Your task to perform on an android device: open app "Airtel Thanks" (install if not already installed) Image 0: 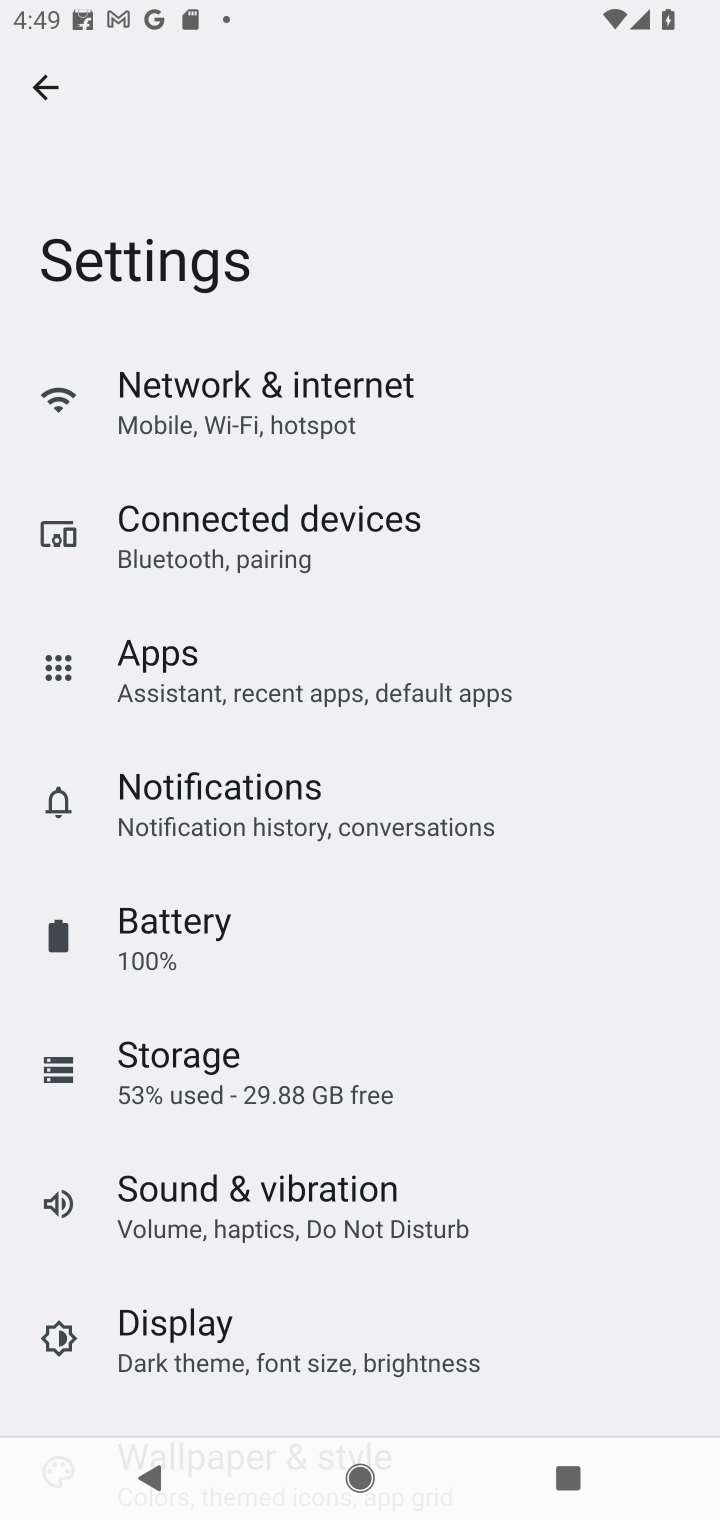
Step 0: press home button
Your task to perform on an android device: open app "Airtel Thanks" (install if not already installed) Image 1: 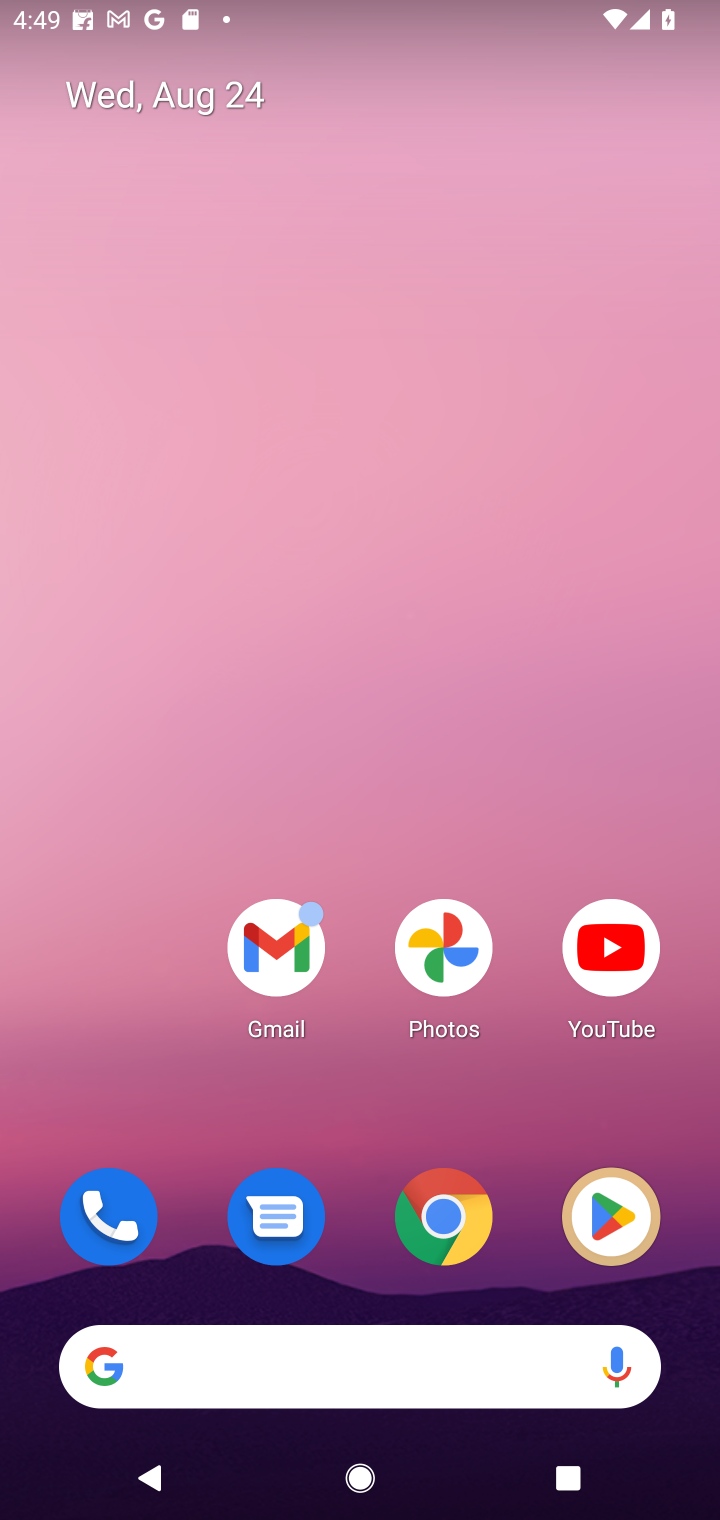
Step 1: click (612, 1234)
Your task to perform on an android device: open app "Airtel Thanks" (install if not already installed) Image 2: 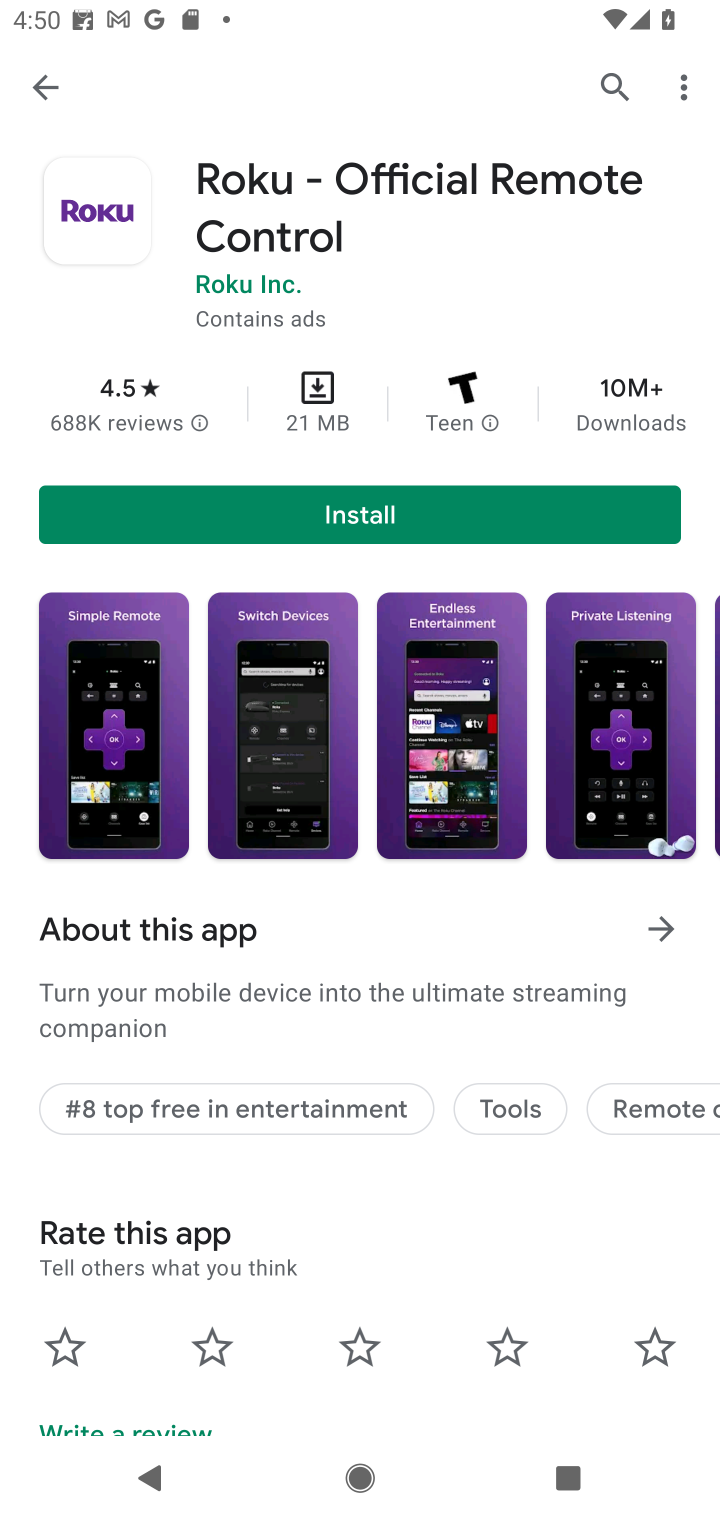
Step 2: click (592, 67)
Your task to perform on an android device: open app "Airtel Thanks" (install if not already installed) Image 3: 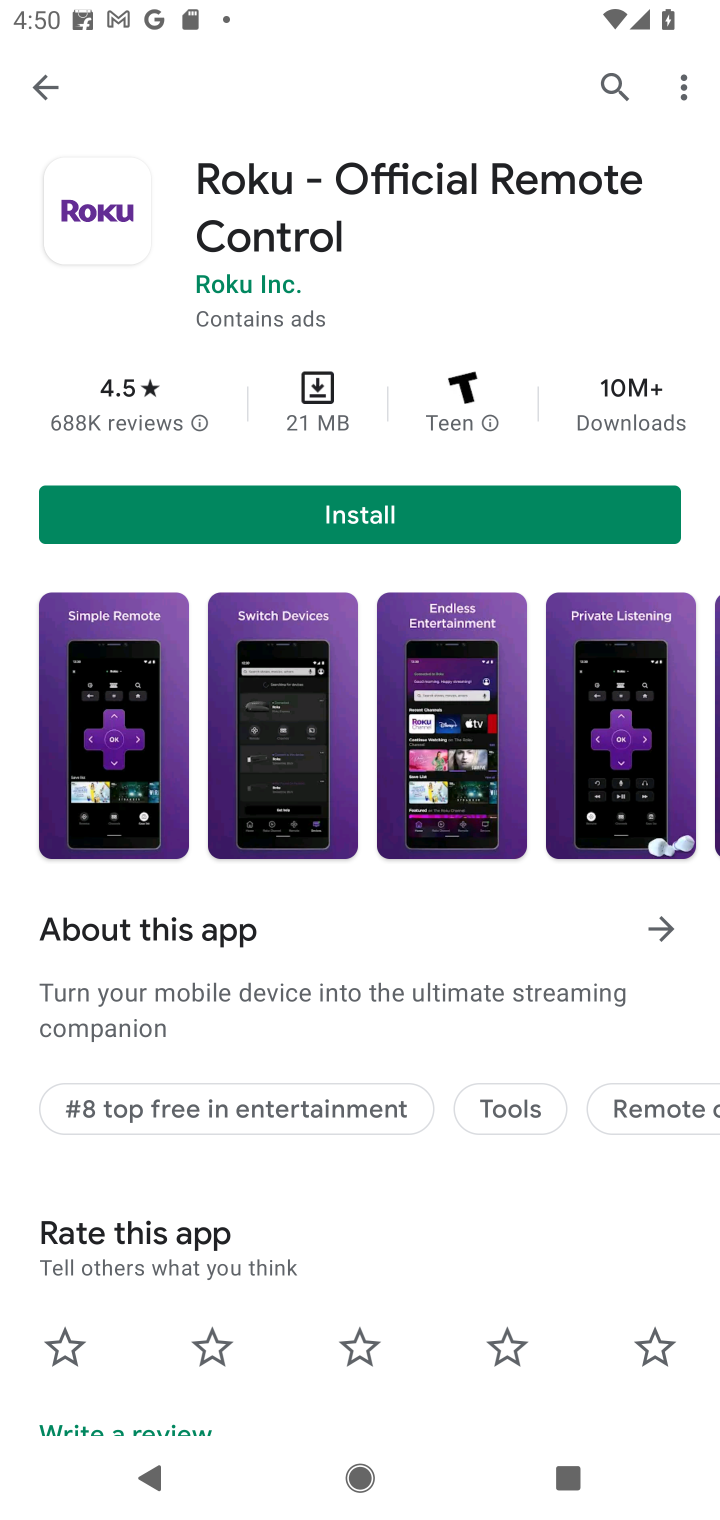
Step 3: click (601, 84)
Your task to perform on an android device: open app "Airtel Thanks" (install if not already installed) Image 4: 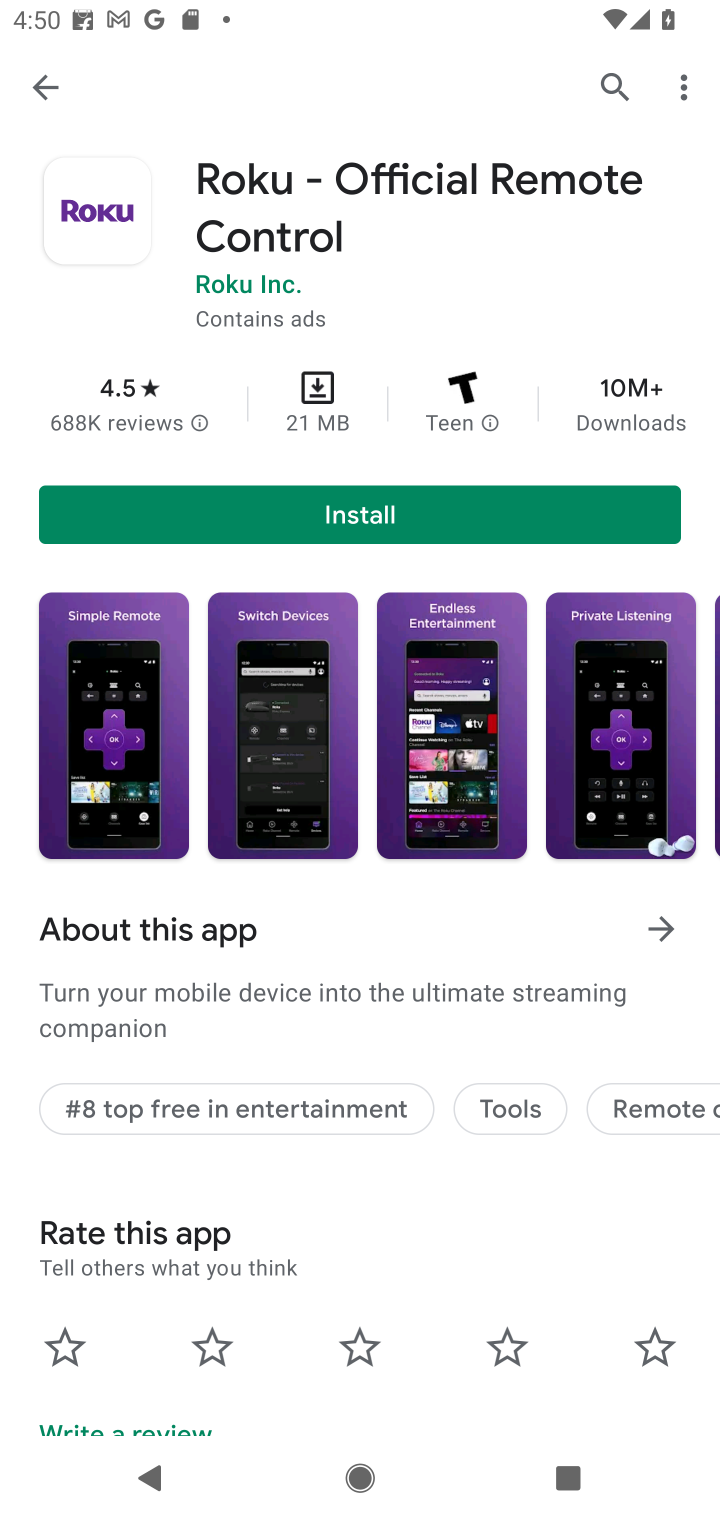
Step 4: click (613, 80)
Your task to perform on an android device: open app "Airtel Thanks" (install if not already installed) Image 5: 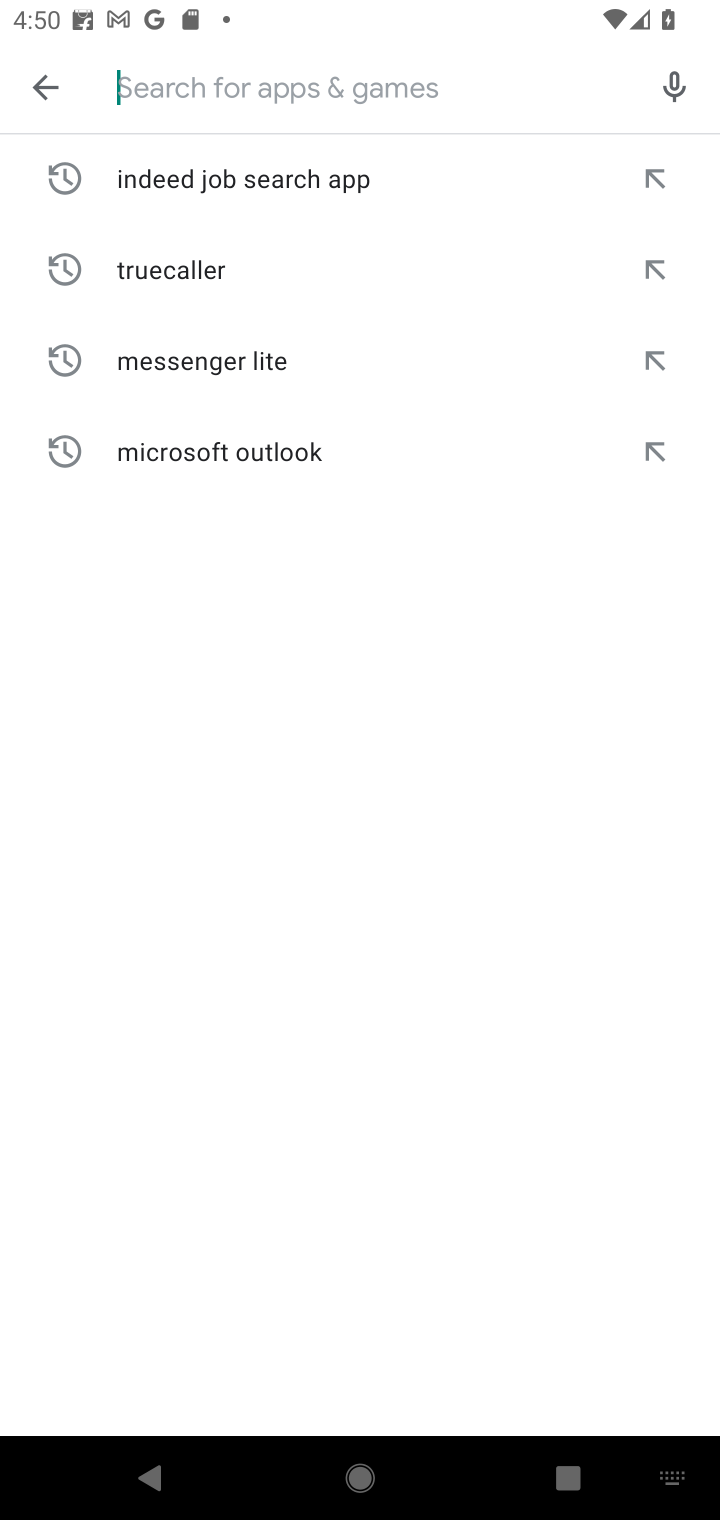
Step 5: type "Airtel Thanks"
Your task to perform on an android device: open app "Airtel Thanks" (install if not already installed) Image 6: 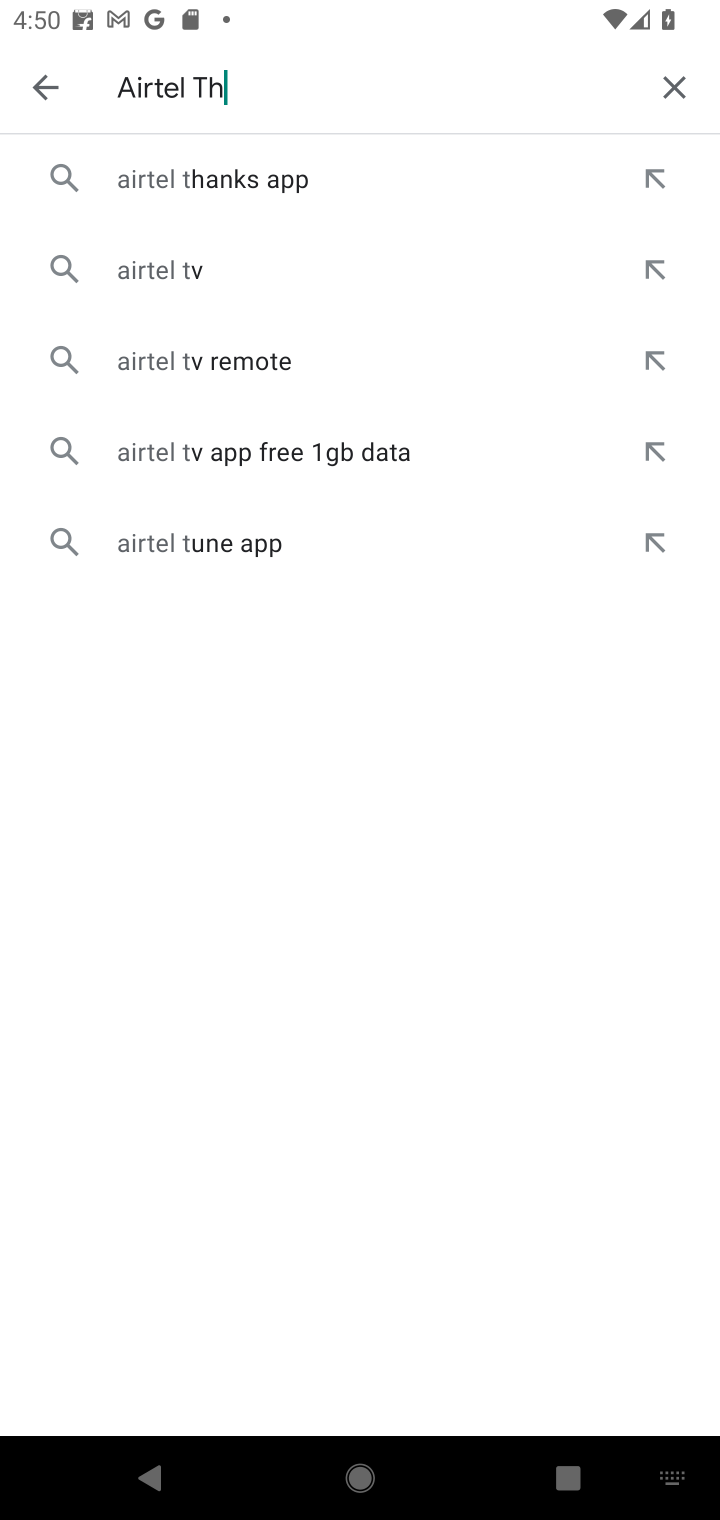
Step 6: type ""
Your task to perform on an android device: open app "Airtel Thanks" (install if not already installed) Image 7: 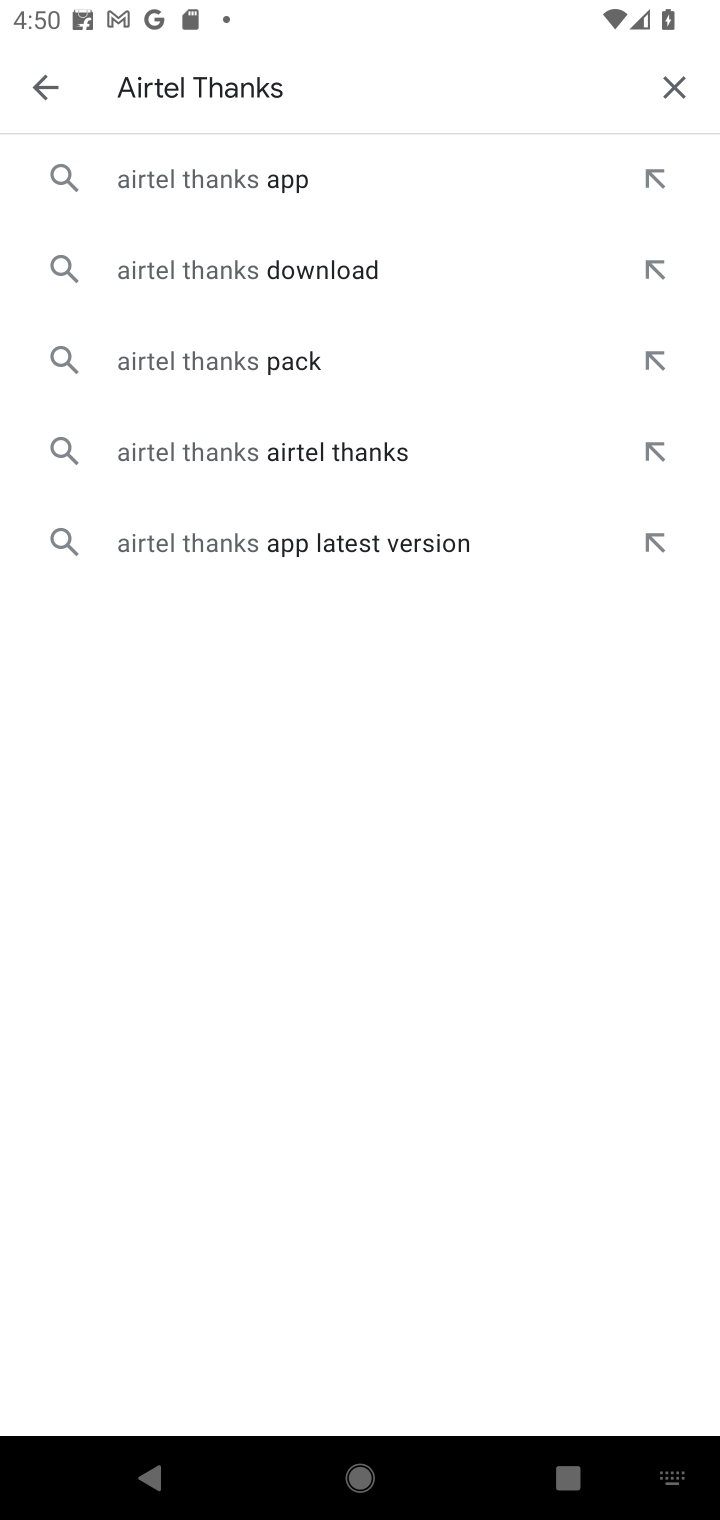
Step 7: click (341, 190)
Your task to perform on an android device: open app "Airtel Thanks" (install if not already installed) Image 8: 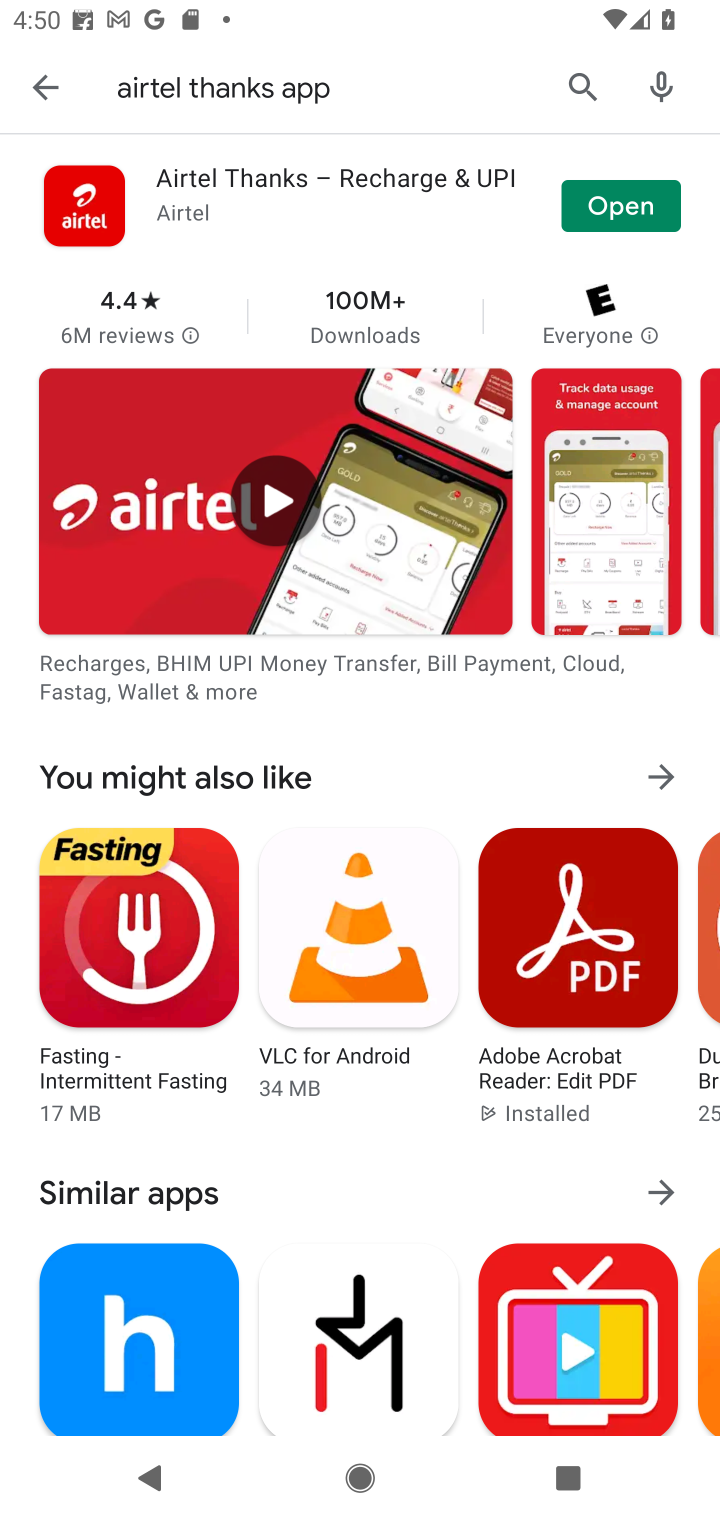
Step 8: click (601, 204)
Your task to perform on an android device: open app "Airtel Thanks" (install if not already installed) Image 9: 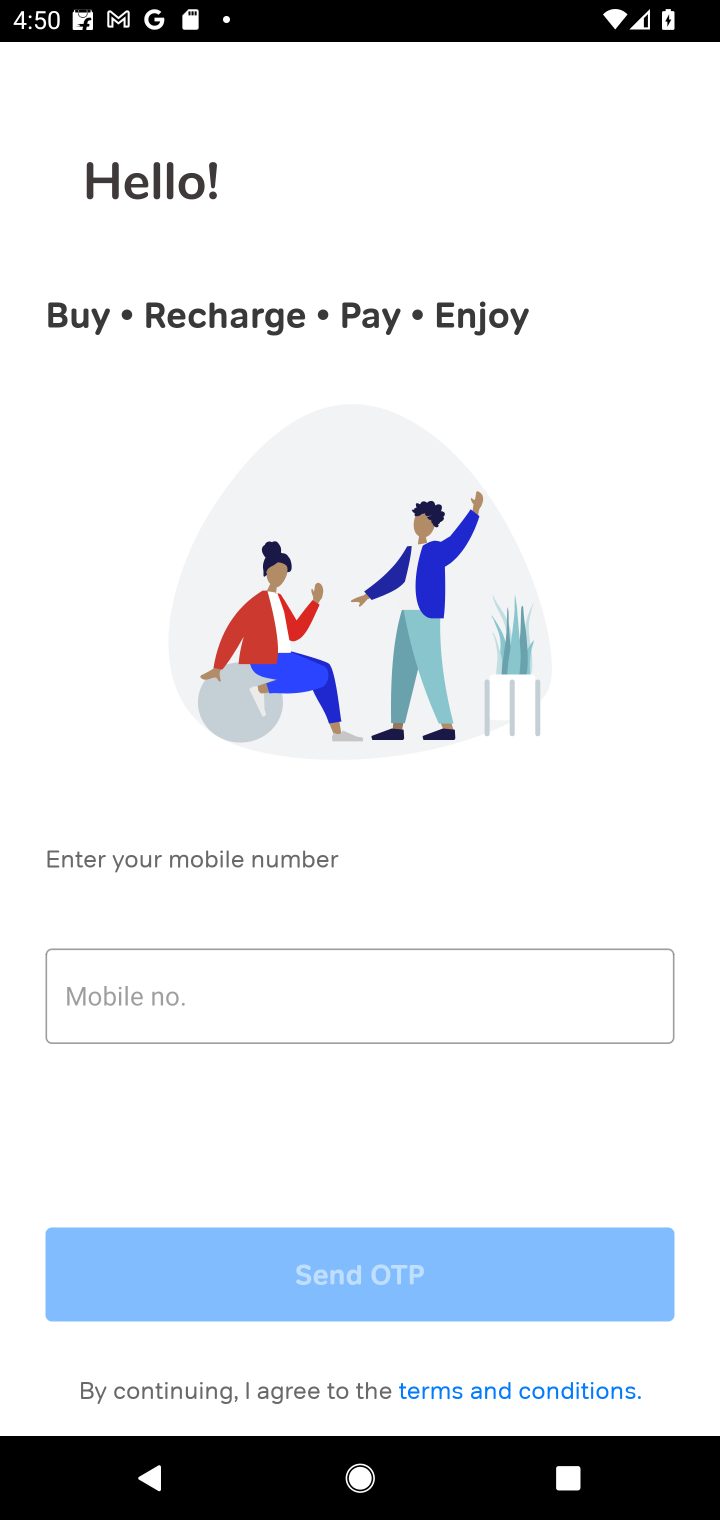
Step 9: task complete